Your task to perform on an android device: allow notifications from all sites in the chrome app Image 0: 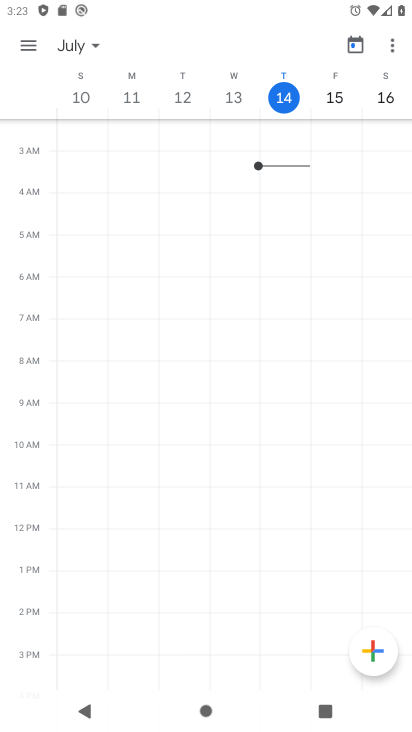
Step 0: press home button
Your task to perform on an android device: allow notifications from all sites in the chrome app Image 1: 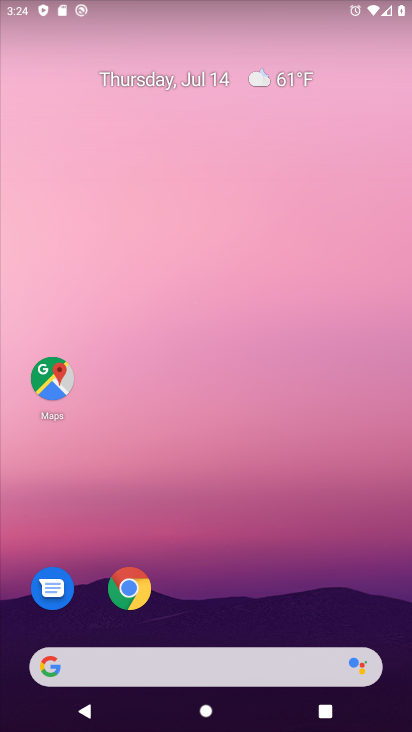
Step 1: drag from (248, 475) to (298, 38)
Your task to perform on an android device: allow notifications from all sites in the chrome app Image 2: 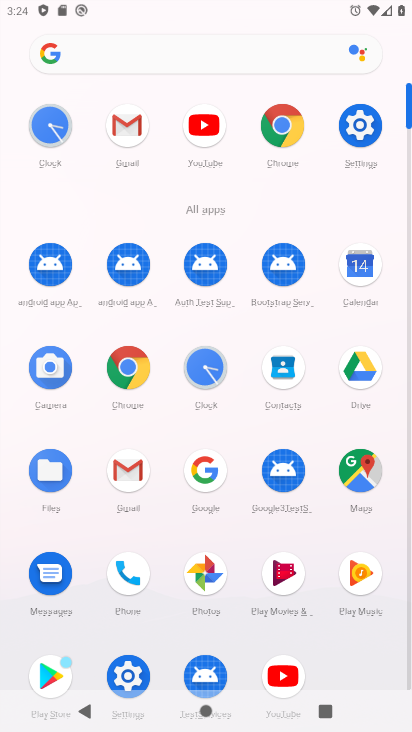
Step 2: click (125, 367)
Your task to perform on an android device: allow notifications from all sites in the chrome app Image 3: 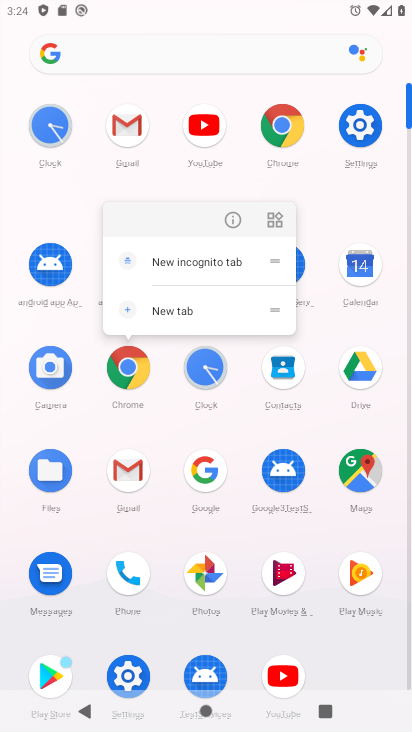
Step 3: click (131, 364)
Your task to perform on an android device: allow notifications from all sites in the chrome app Image 4: 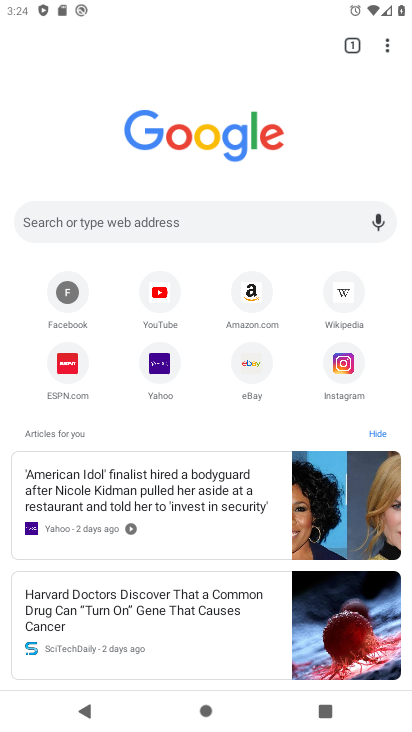
Step 4: click (387, 41)
Your task to perform on an android device: allow notifications from all sites in the chrome app Image 5: 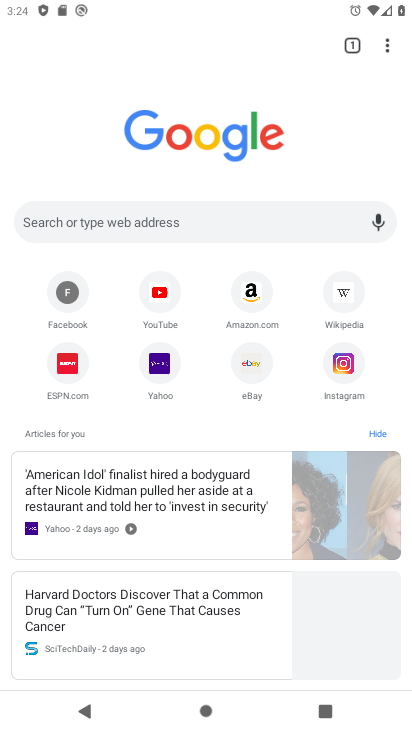
Step 5: drag from (387, 41) to (212, 375)
Your task to perform on an android device: allow notifications from all sites in the chrome app Image 6: 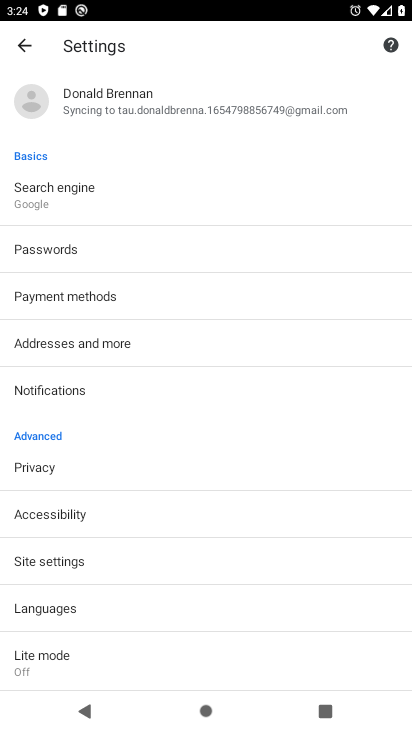
Step 6: click (49, 549)
Your task to perform on an android device: allow notifications from all sites in the chrome app Image 7: 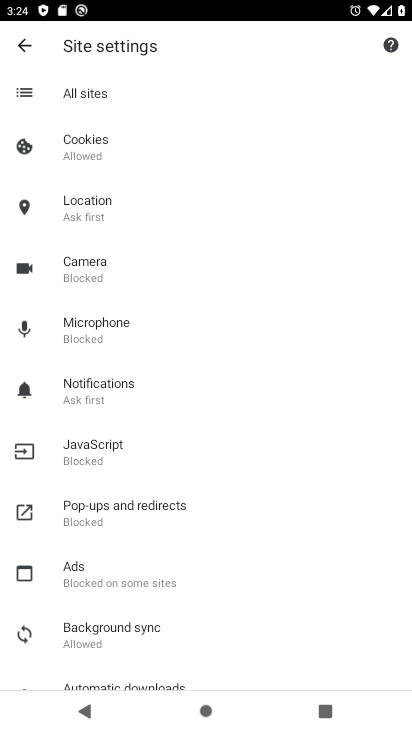
Step 7: click (97, 379)
Your task to perform on an android device: allow notifications from all sites in the chrome app Image 8: 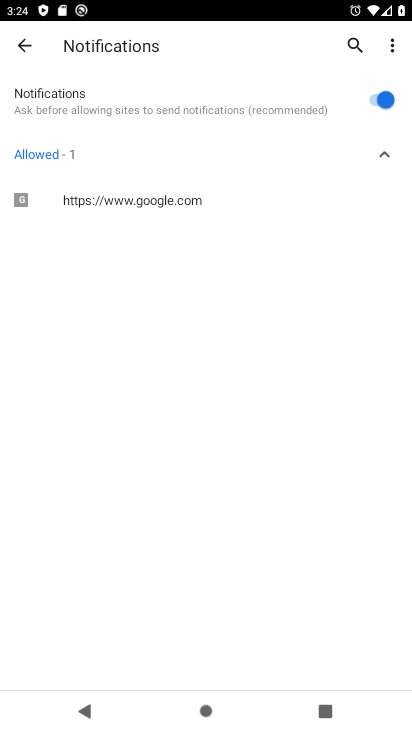
Step 8: task complete